Your task to perform on an android device: turn pop-ups on in chrome Image 0: 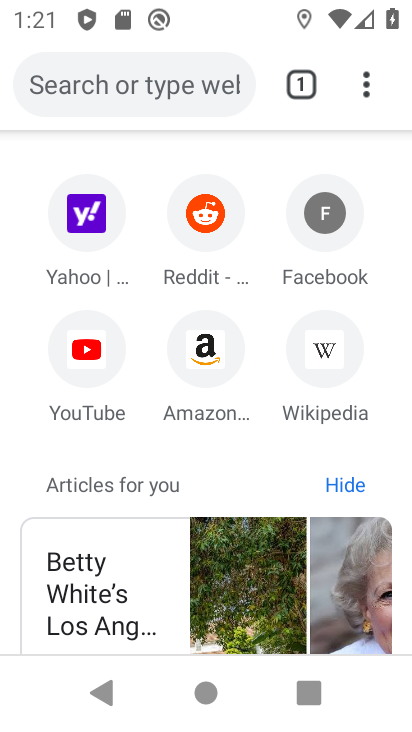
Step 0: press home button
Your task to perform on an android device: turn pop-ups on in chrome Image 1: 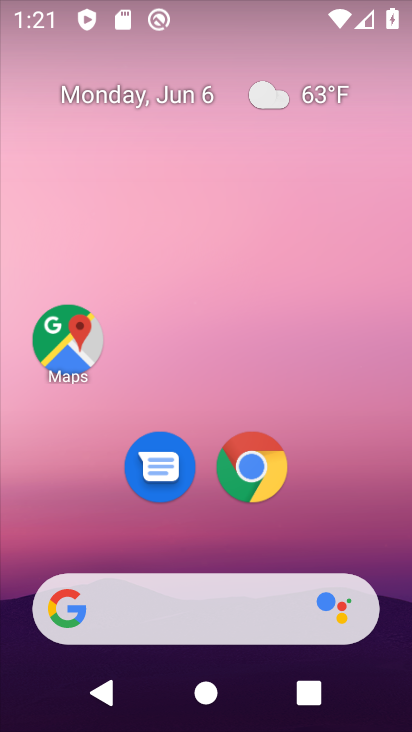
Step 1: drag from (396, 608) to (299, 94)
Your task to perform on an android device: turn pop-ups on in chrome Image 2: 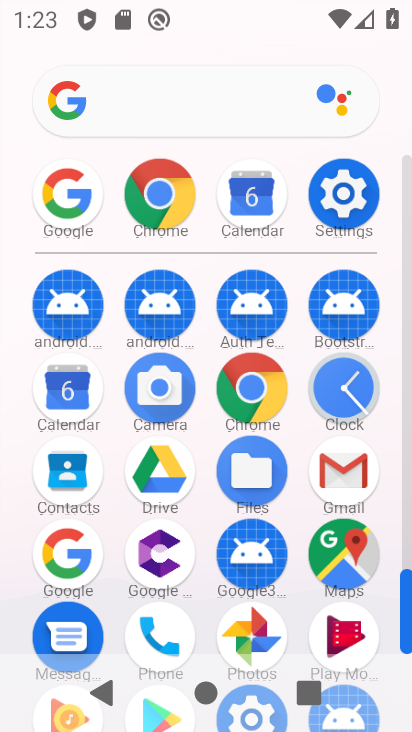
Step 2: click (269, 390)
Your task to perform on an android device: turn pop-ups on in chrome Image 3: 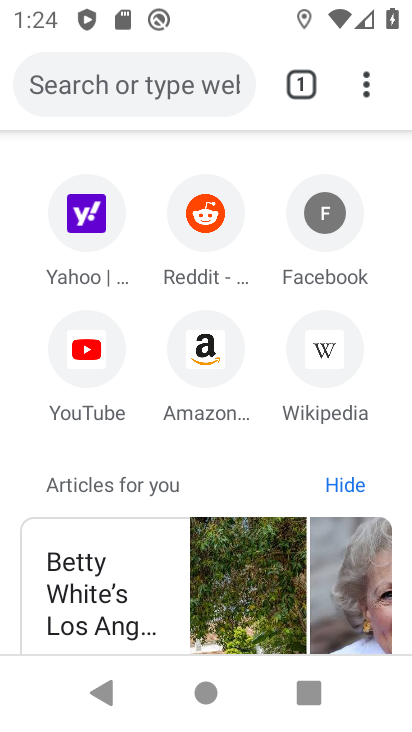
Step 3: click (352, 93)
Your task to perform on an android device: turn pop-ups on in chrome Image 4: 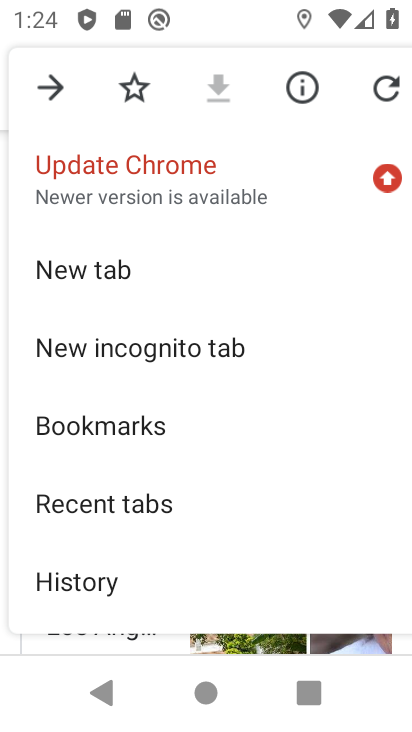
Step 4: drag from (178, 583) to (195, 54)
Your task to perform on an android device: turn pop-ups on in chrome Image 5: 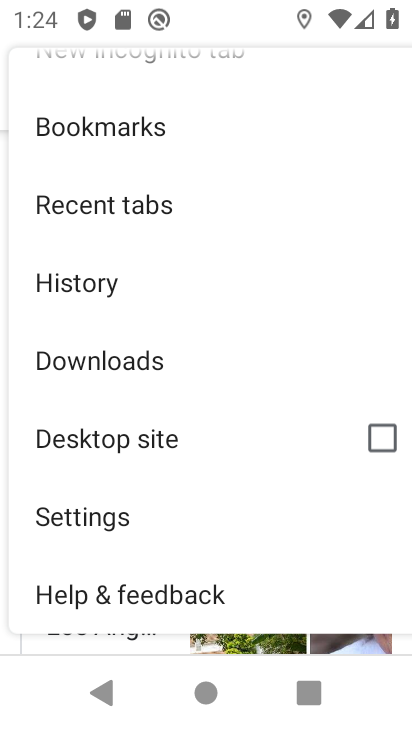
Step 5: click (136, 535)
Your task to perform on an android device: turn pop-ups on in chrome Image 6: 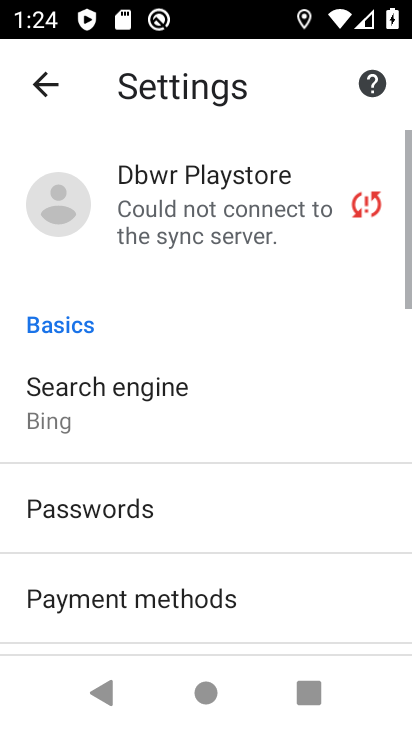
Step 6: drag from (76, 591) to (163, 108)
Your task to perform on an android device: turn pop-ups on in chrome Image 7: 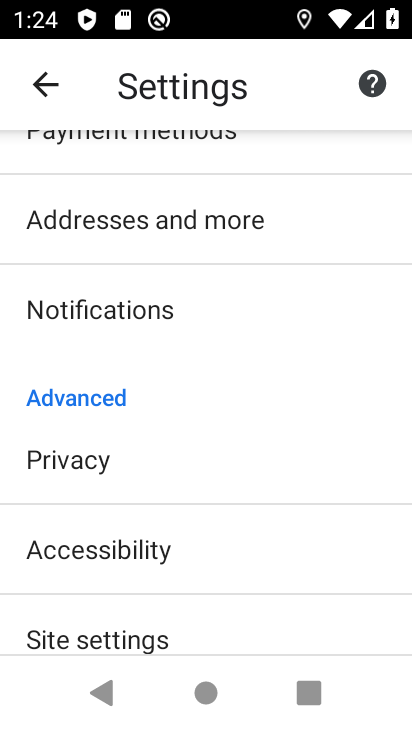
Step 7: click (121, 623)
Your task to perform on an android device: turn pop-ups on in chrome Image 8: 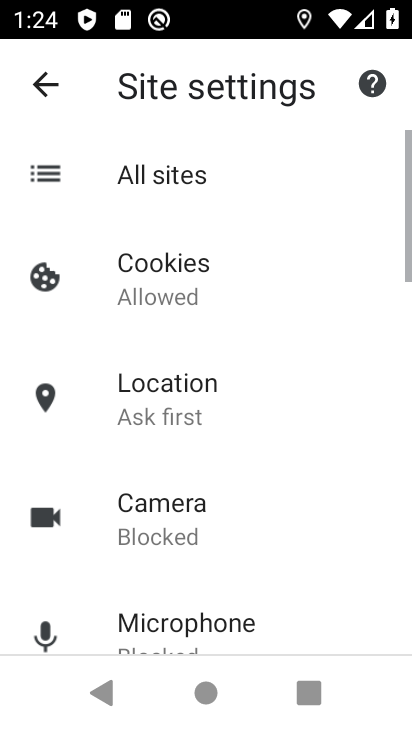
Step 8: drag from (123, 618) to (170, 181)
Your task to perform on an android device: turn pop-ups on in chrome Image 9: 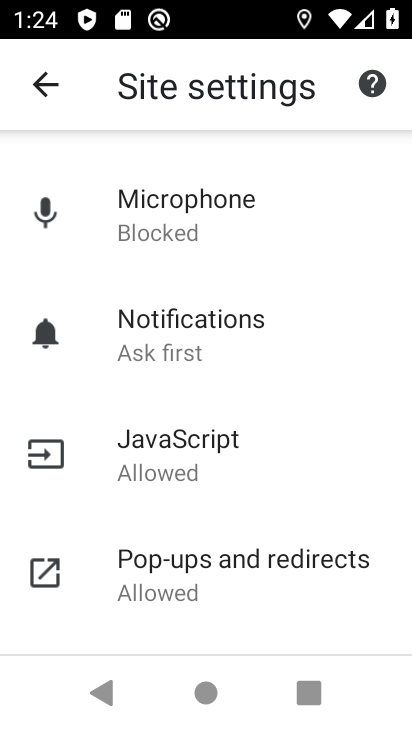
Step 9: click (210, 589)
Your task to perform on an android device: turn pop-ups on in chrome Image 10: 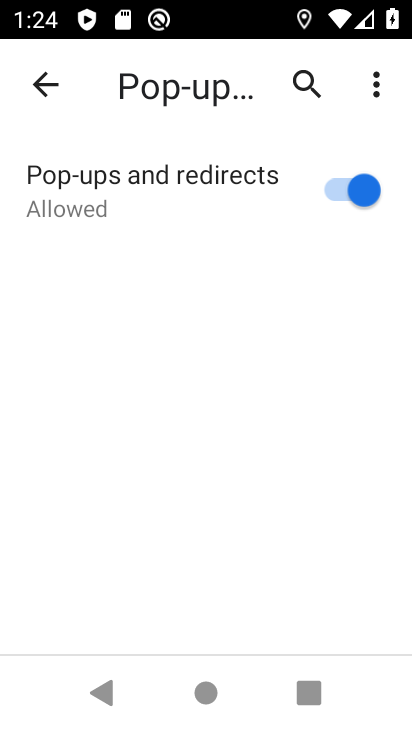
Step 10: task complete